Your task to perform on an android device: Go to Yahoo.com Image 0: 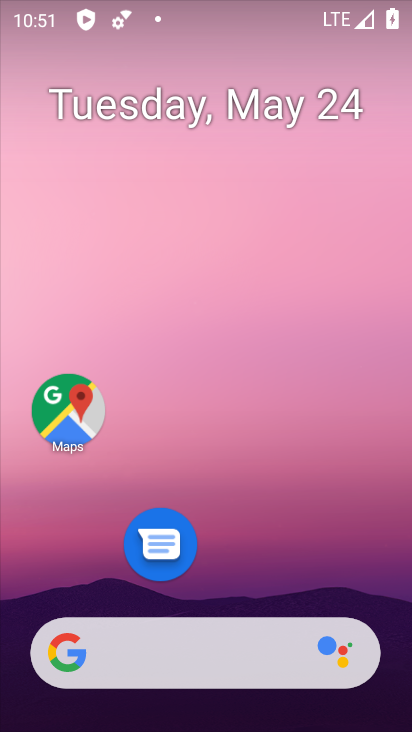
Step 0: drag from (201, 632) to (249, 21)
Your task to perform on an android device: Go to Yahoo.com Image 1: 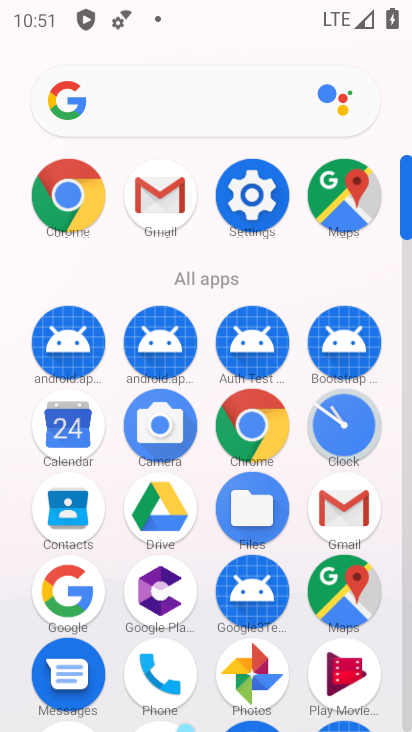
Step 1: click (83, 207)
Your task to perform on an android device: Go to Yahoo.com Image 2: 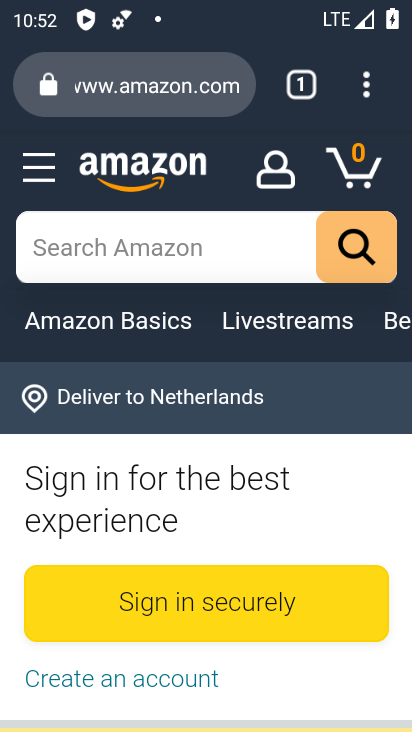
Step 2: click (155, 103)
Your task to perform on an android device: Go to Yahoo.com Image 3: 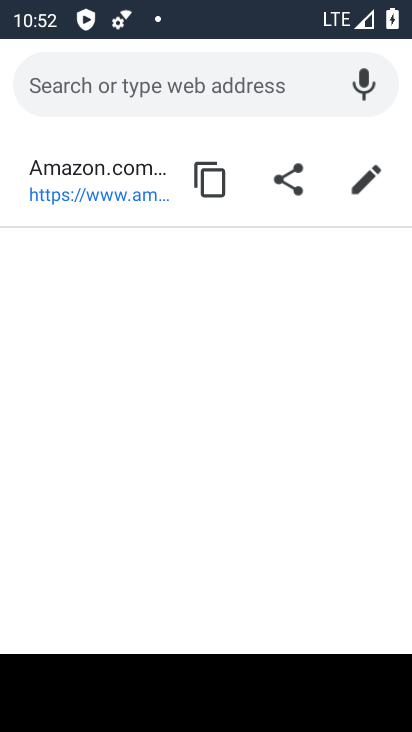
Step 3: type "yahoo.com"
Your task to perform on an android device: Go to Yahoo.com Image 4: 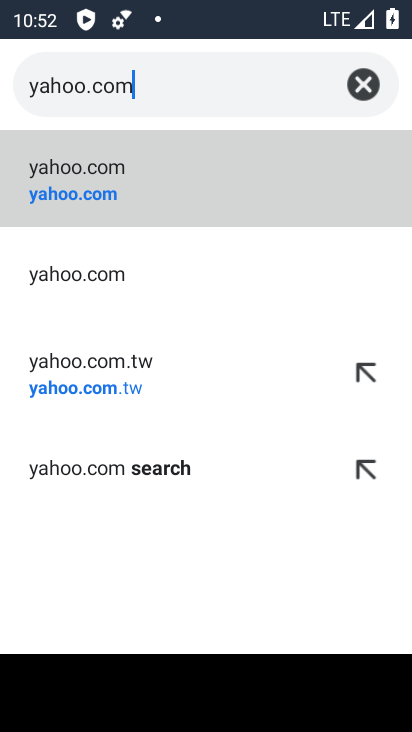
Step 4: click (154, 192)
Your task to perform on an android device: Go to Yahoo.com Image 5: 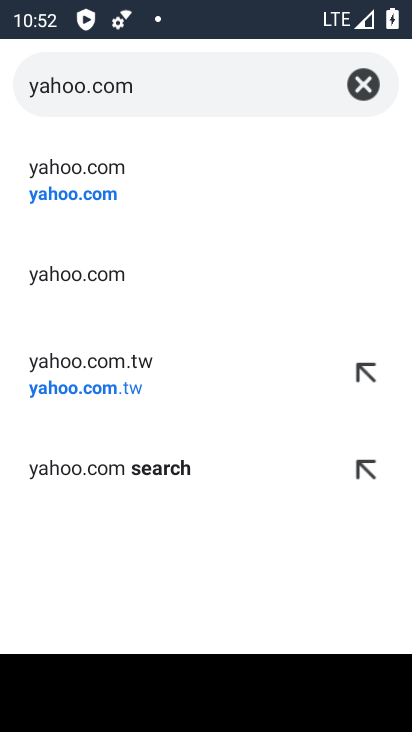
Step 5: click (98, 199)
Your task to perform on an android device: Go to Yahoo.com Image 6: 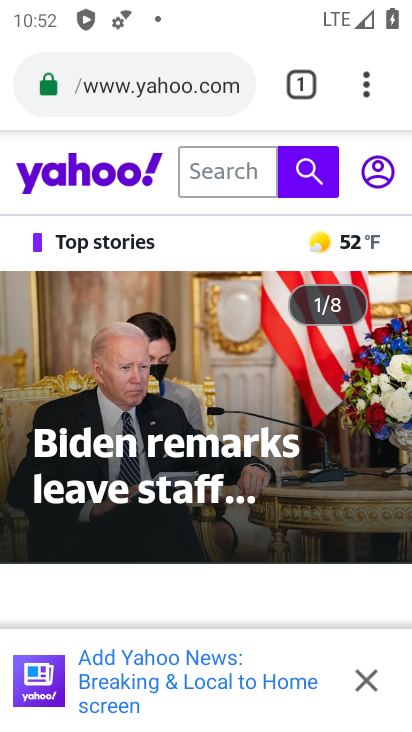
Step 6: task complete